Your task to perform on an android device: add a label to a message in the gmail app Image 0: 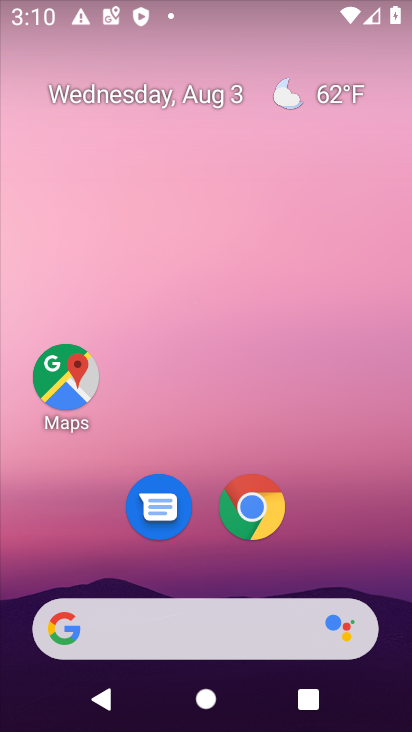
Step 0: drag from (344, 559) to (46, 178)
Your task to perform on an android device: add a label to a message in the gmail app Image 1: 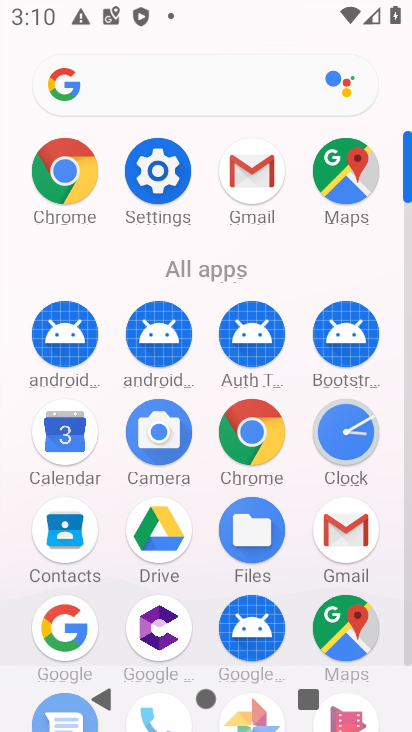
Step 1: click (256, 173)
Your task to perform on an android device: add a label to a message in the gmail app Image 2: 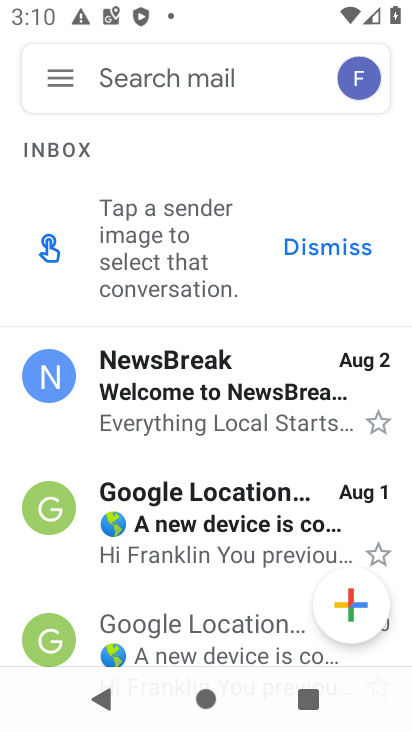
Step 2: click (253, 382)
Your task to perform on an android device: add a label to a message in the gmail app Image 3: 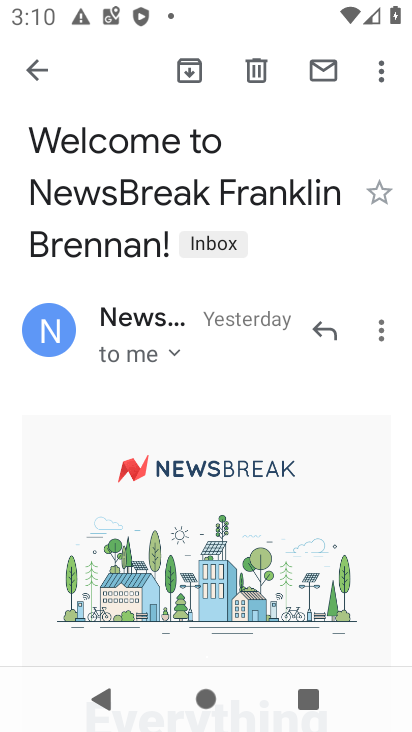
Step 3: click (378, 65)
Your task to perform on an android device: add a label to a message in the gmail app Image 4: 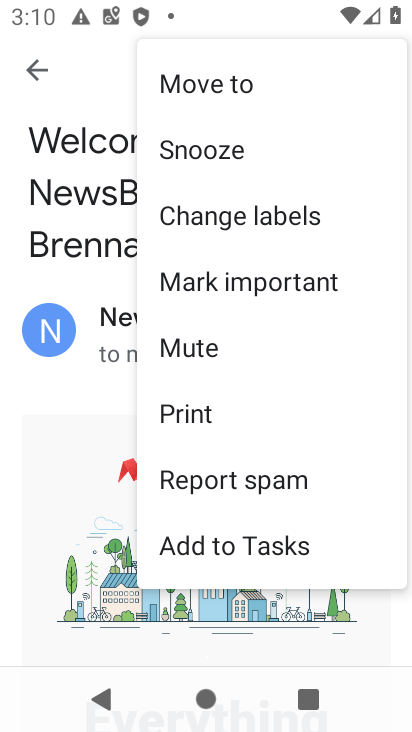
Step 4: click (97, 398)
Your task to perform on an android device: add a label to a message in the gmail app Image 5: 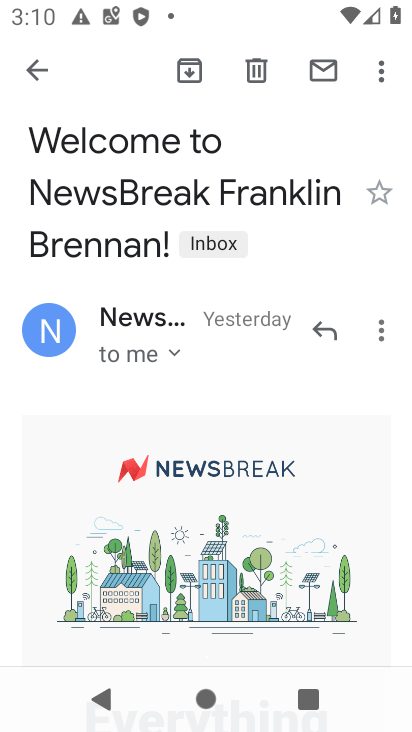
Step 5: press back button
Your task to perform on an android device: add a label to a message in the gmail app Image 6: 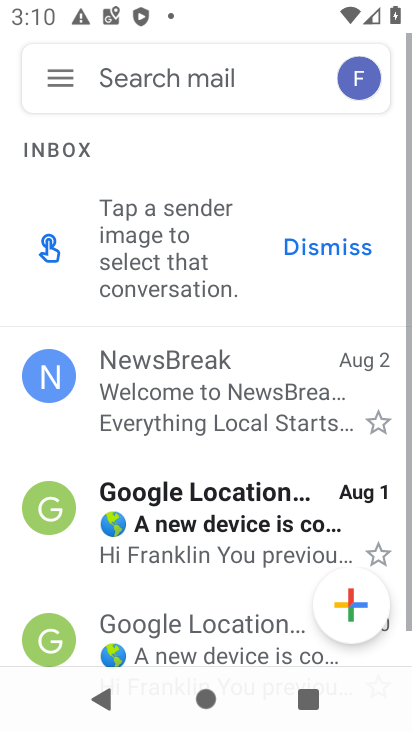
Step 6: click (47, 74)
Your task to perform on an android device: add a label to a message in the gmail app Image 7: 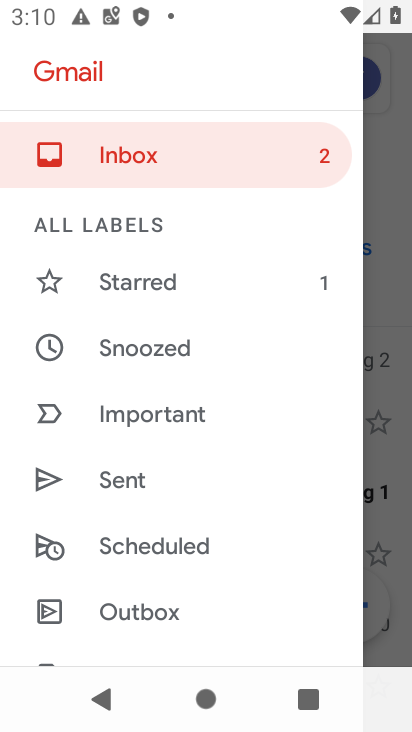
Step 7: click (385, 217)
Your task to perform on an android device: add a label to a message in the gmail app Image 8: 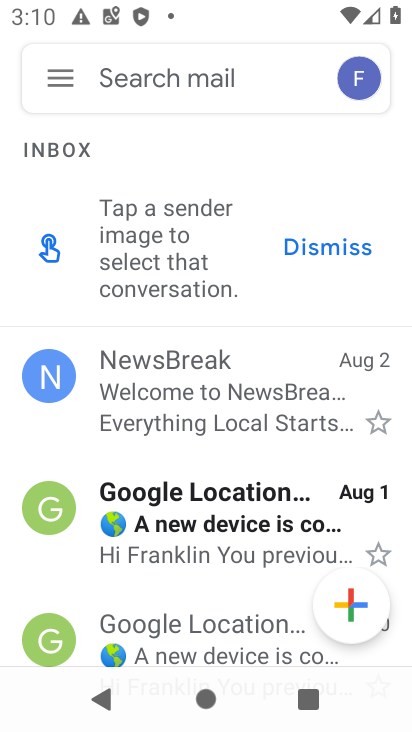
Step 8: click (379, 423)
Your task to perform on an android device: add a label to a message in the gmail app Image 9: 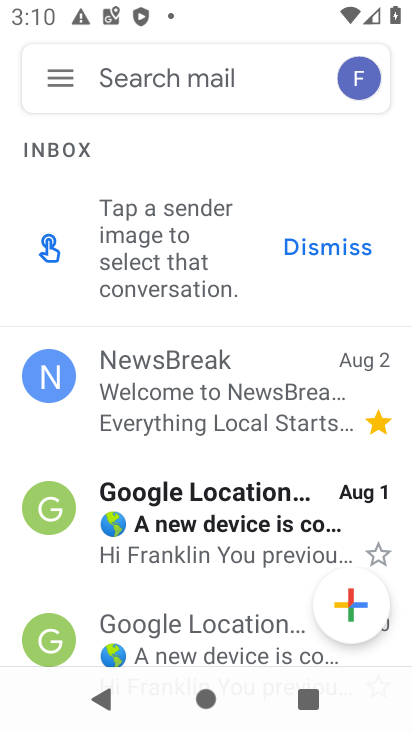
Step 9: task complete